Your task to perform on an android device: Open sound settings Image 0: 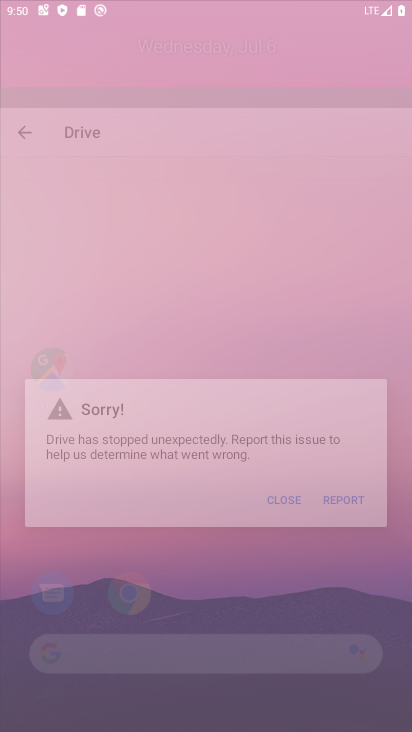
Step 0: click (277, 151)
Your task to perform on an android device: Open sound settings Image 1: 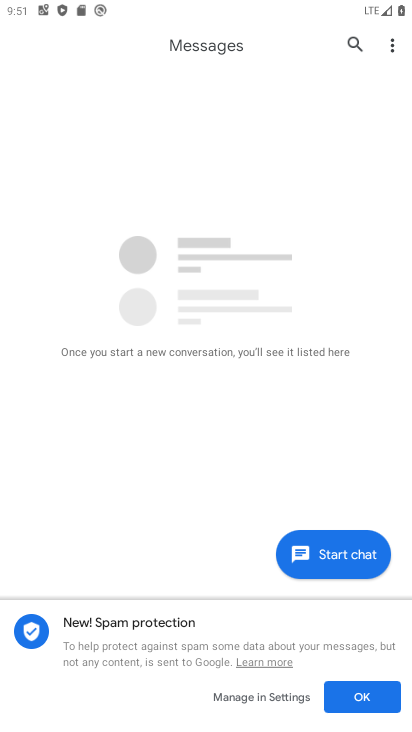
Step 1: press home button
Your task to perform on an android device: Open sound settings Image 2: 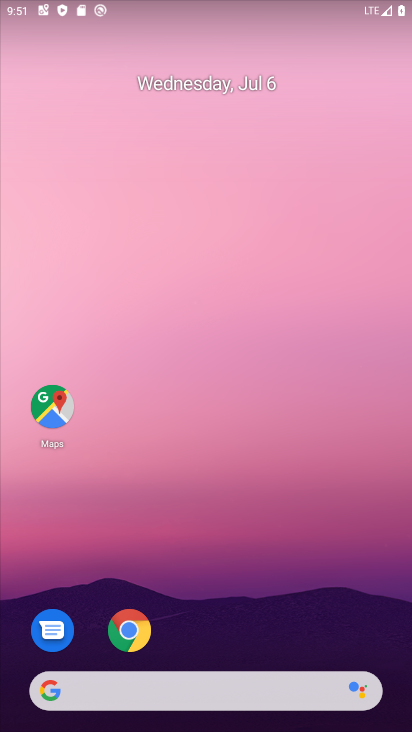
Step 2: drag from (320, 552) to (308, 91)
Your task to perform on an android device: Open sound settings Image 3: 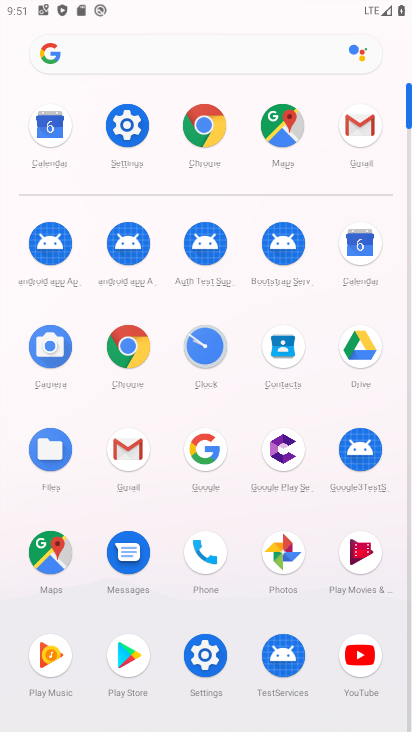
Step 3: click (205, 656)
Your task to perform on an android device: Open sound settings Image 4: 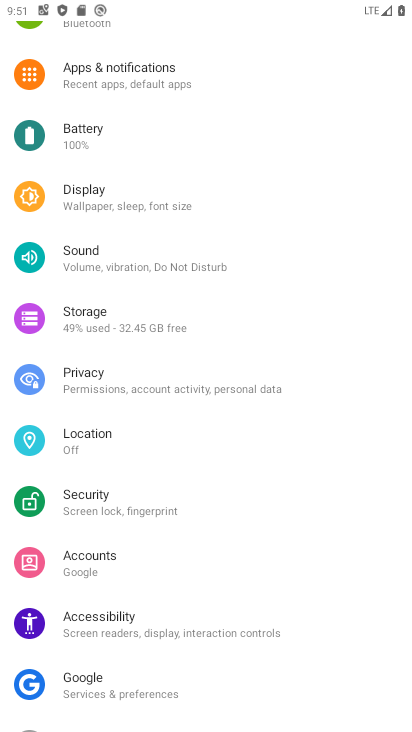
Step 4: click (90, 257)
Your task to perform on an android device: Open sound settings Image 5: 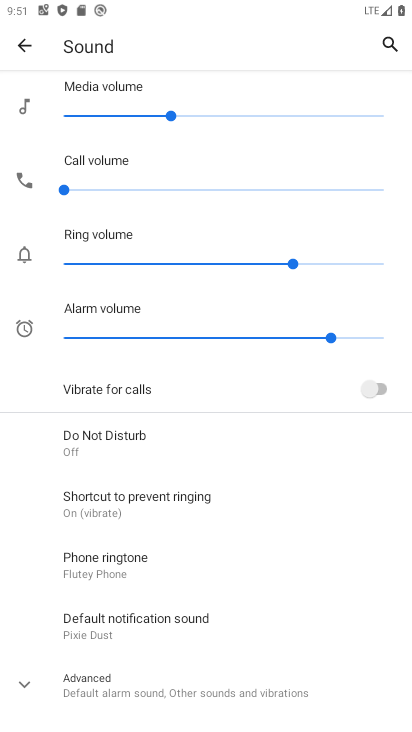
Step 5: task complete